Your task to perform on an android device: Open settings Image 0: 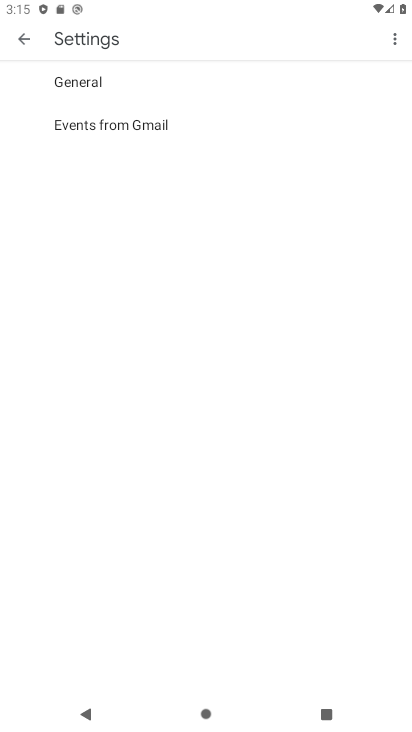
Step 0: press home button
Your task to perform on an android device: Open settings Image 1: 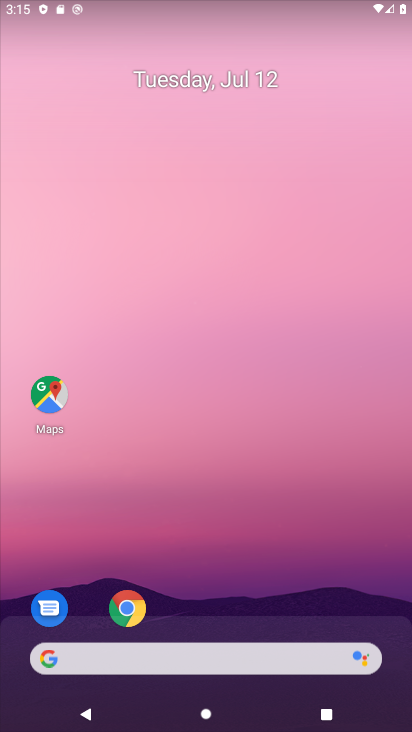
Step 1: drag from (183, 640) to (290, 120)
Your task to perform on an android device: Open settings Image 2: 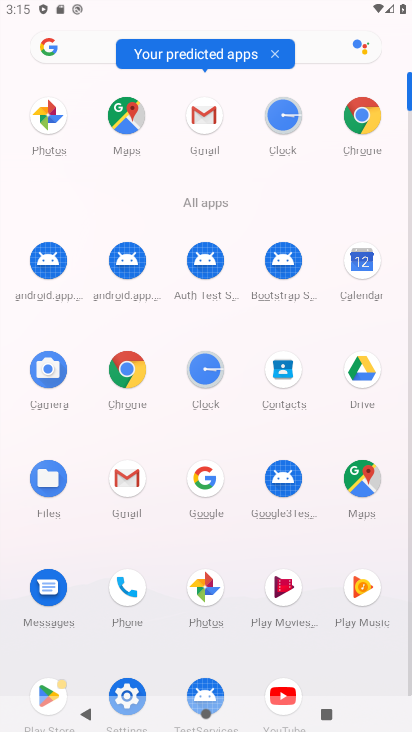
Step 2: click (131, 688)
Your task to perform on an android device: Open settings Image 3: 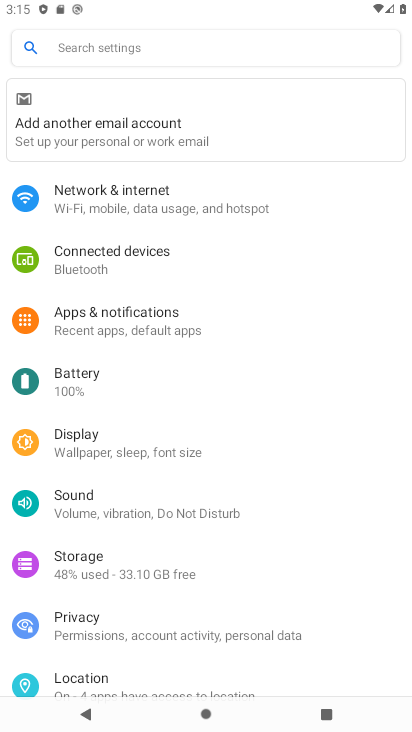
Step 3: task complete